Your task to perform on an android device: Open calendar and show me the first week of next month Image 0: 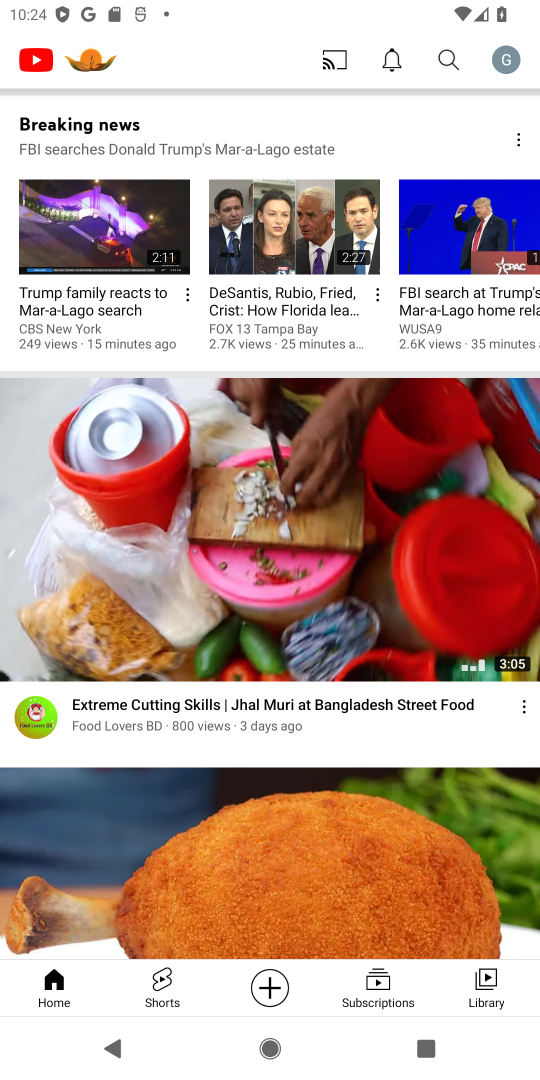
Step 0: press home button
Your task to perform on an android device: Open calendar and show me the first week of next month Image 1: 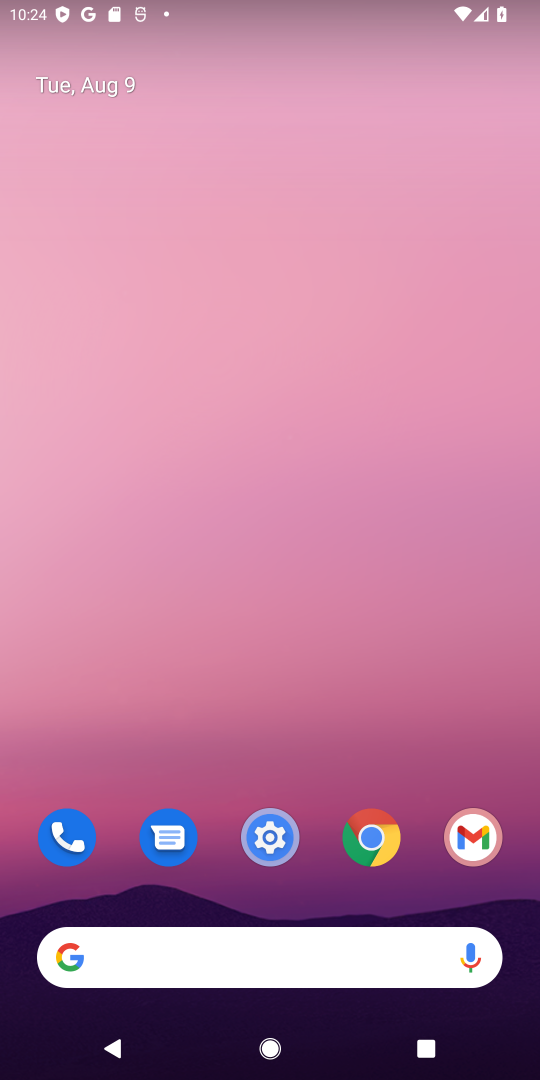
Step 1: drag from (307, 915) to (310, 78)
Your task to perform on an android device: Open calendar and show me the first week of next month Image 2: 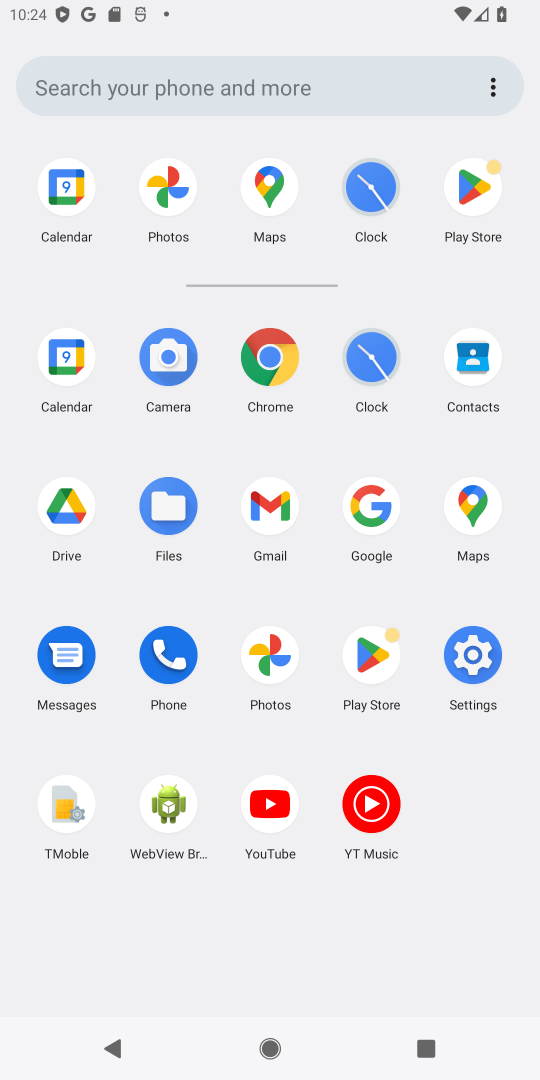
Step 2: click (64, 354)
Your task to perform on an android device: Open calendar and show me the first week of next month Image 3: 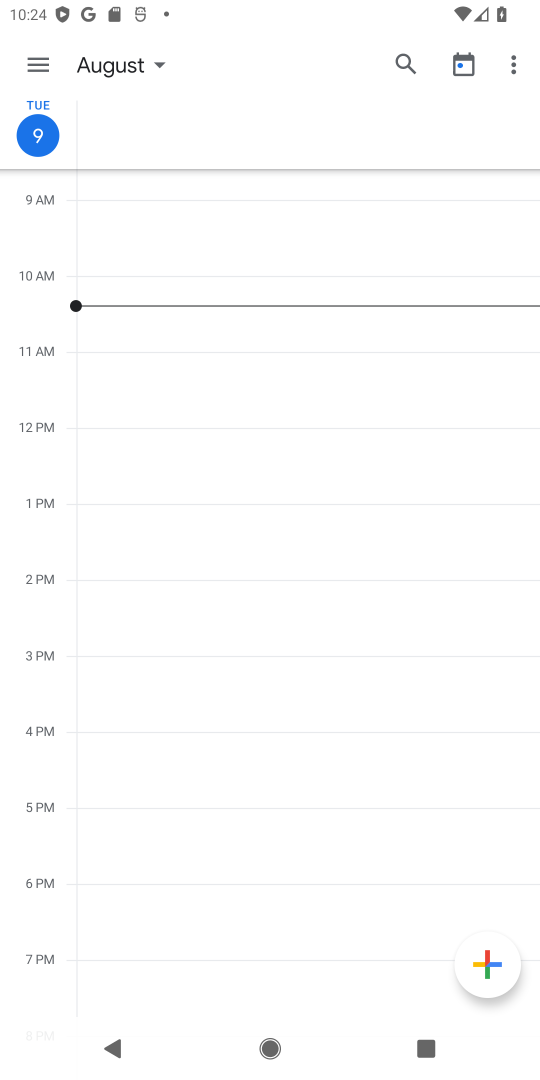
Step 3: click (156, 61)
Your task to perform on an android device: Open calendar and show me the first week of next month Image 4: 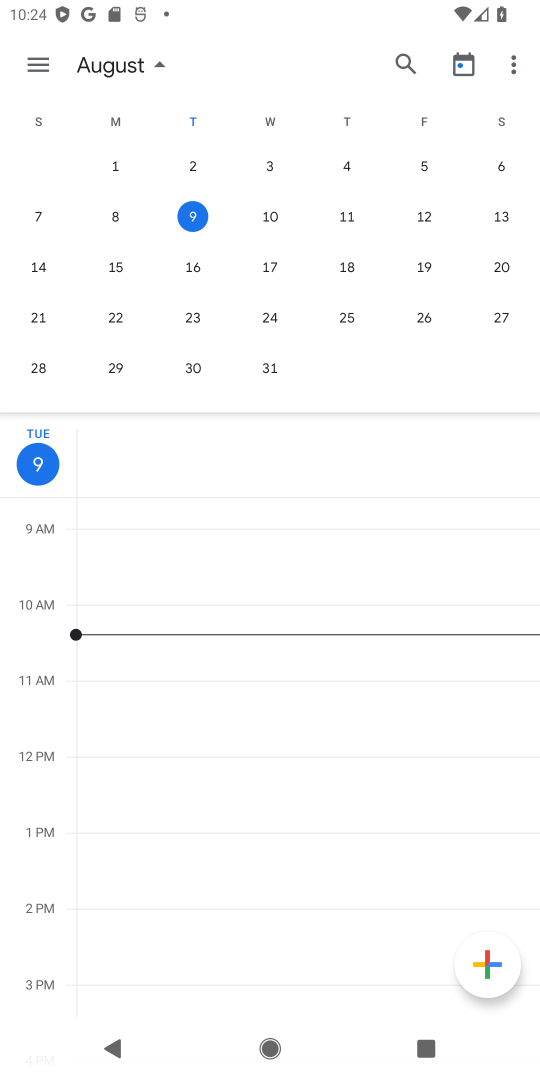
Step 4: drag from (481, 271) to (75, 263)
Your task to perform on an android device: Open calendar and show me the first week of next month Image 5: 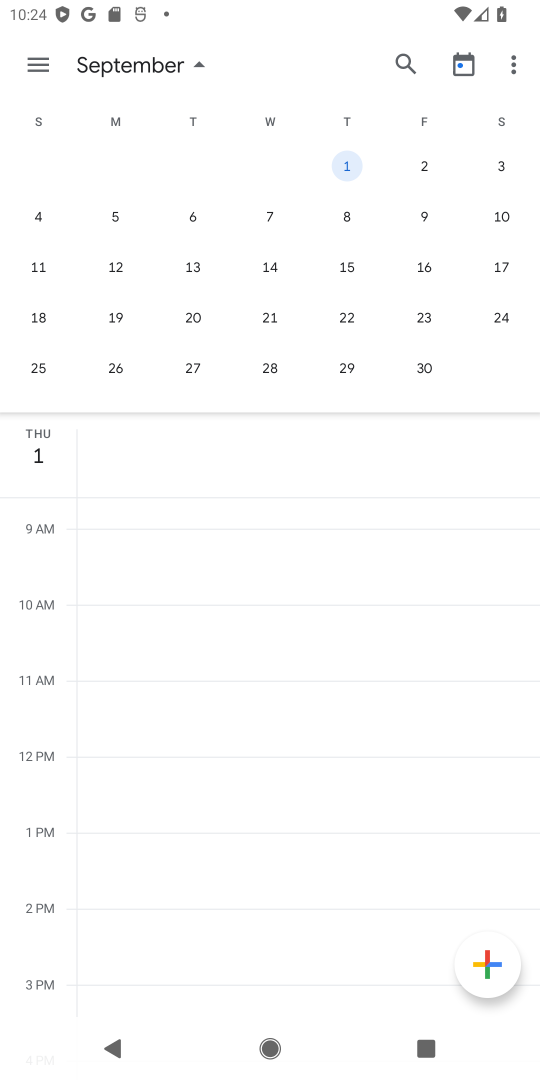
Step 5: click (120, 215)
Your task to perform on an android device: Open calendar and show me the first week of next month Image 6: 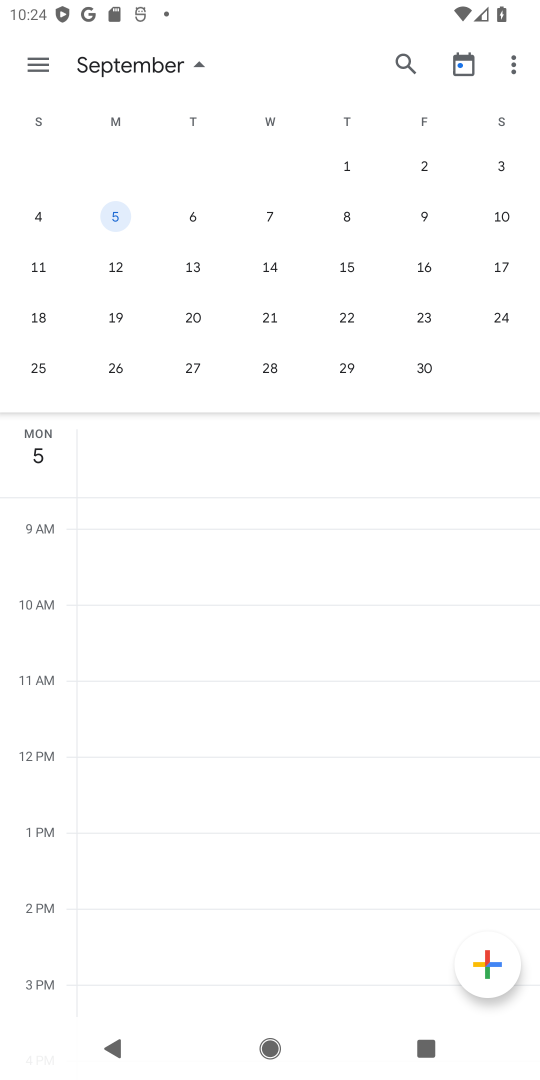
Step 6: click (39, 62)
Your task to perform on an android device: Open calendar and show me the first week of next month Image 7: 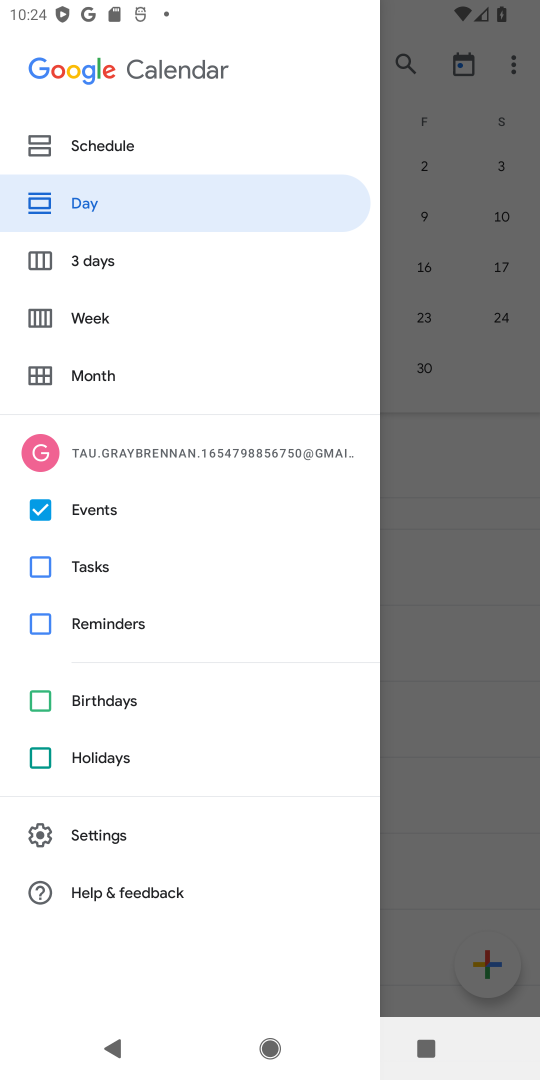
Step 7: click (95, 319)
Your task to perform on an android device: Open calendar and show me the first week of next month Image 8: 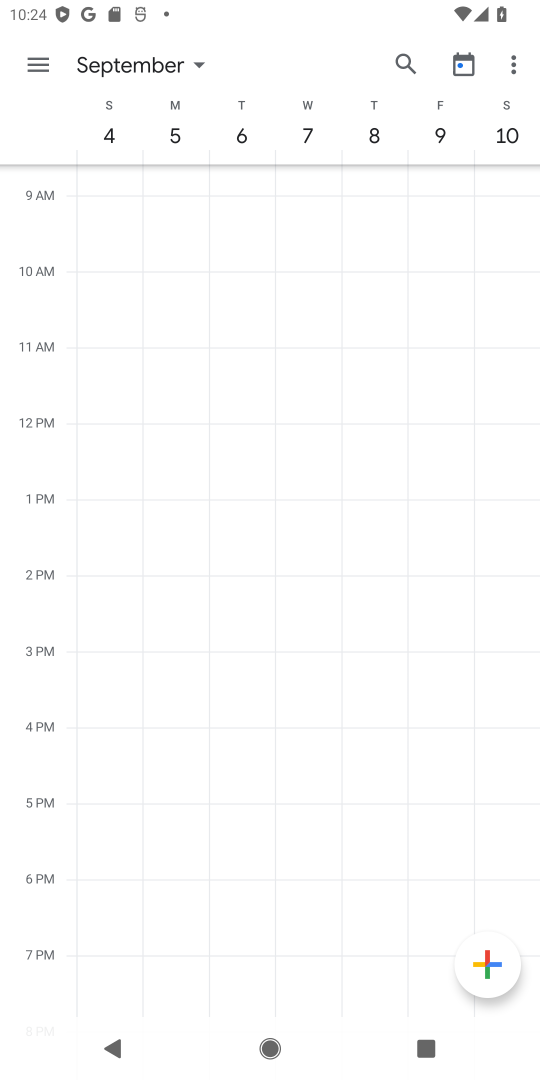
Step 8: task complete